Your task to perform on an android device: add a contact in the contacts app Image 0: 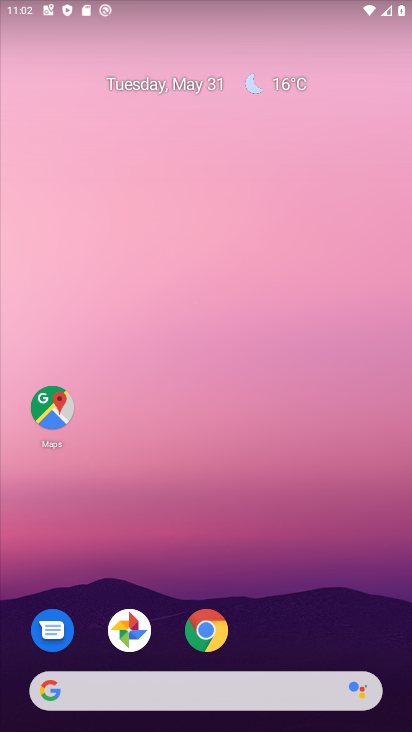
Step 0: drag from (265, 639) to (268, 157)
Your task to perform on an android device: add a contact in the contacts app Image 1: 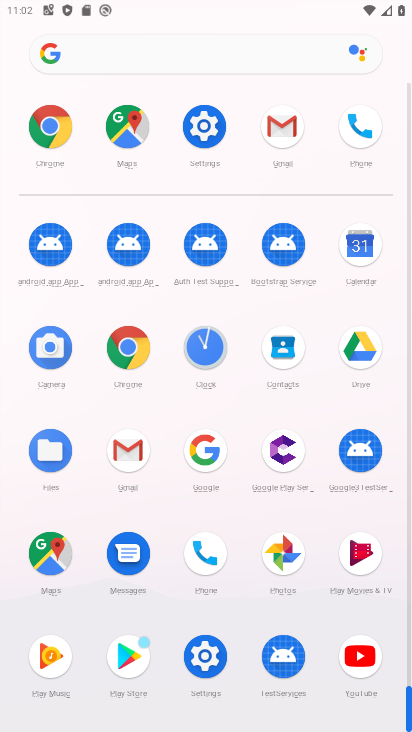
Step 1: click (355, 123)
Your task to perform on an android device: add a contact in the contacts app Image 2: 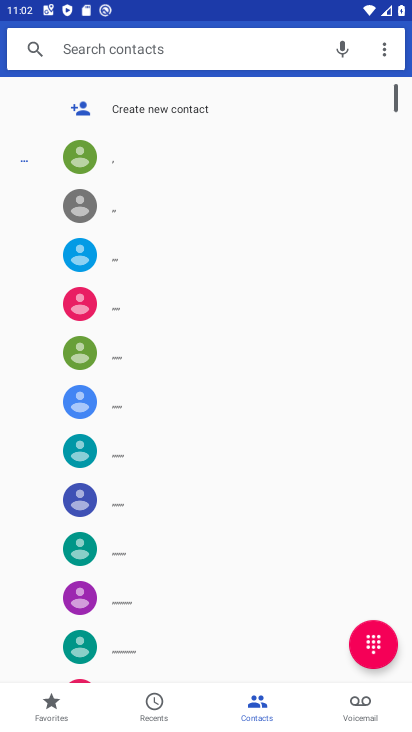
Step 2: click (147, 112)
Your task to perform on an android device: add a contact in the contacts app Image 3: 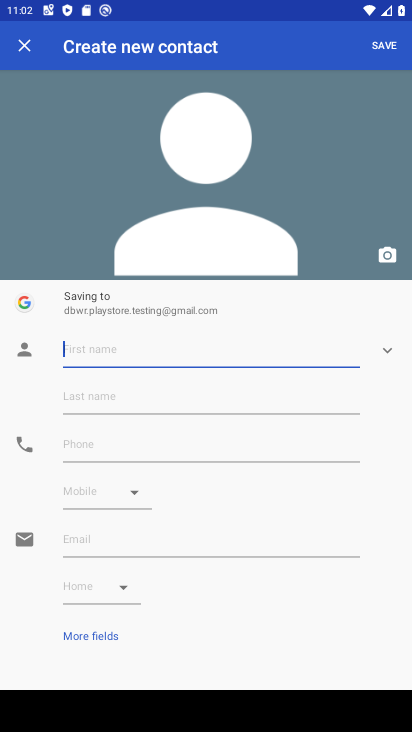
Step 3: click (167, 334)
Your task to perform on an android device: add a contact in the contacts app Image 4: 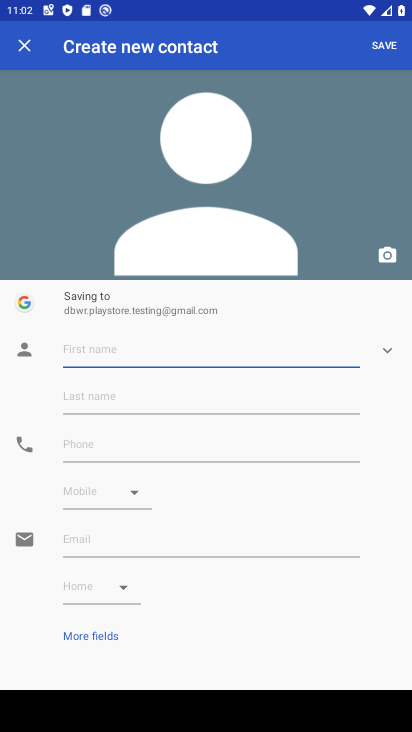
Step 4: type "ygyggygyg"
Your task to perform on an android device: add a contact in the contacts app Image 5: 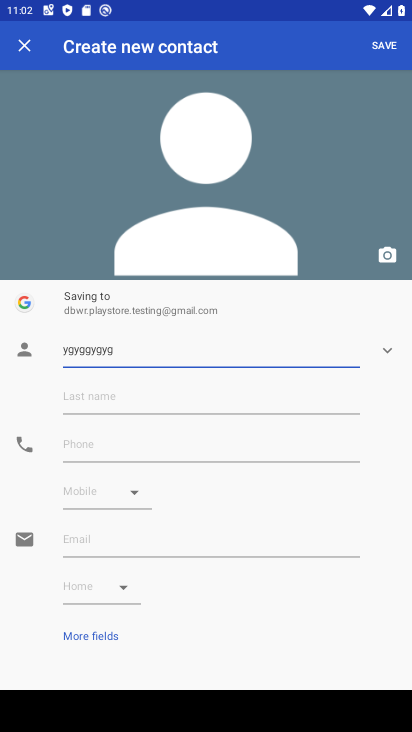
Step 5: click (106, 447)
Your task to perform on an android device: add a contact in the contacts app Image 6: 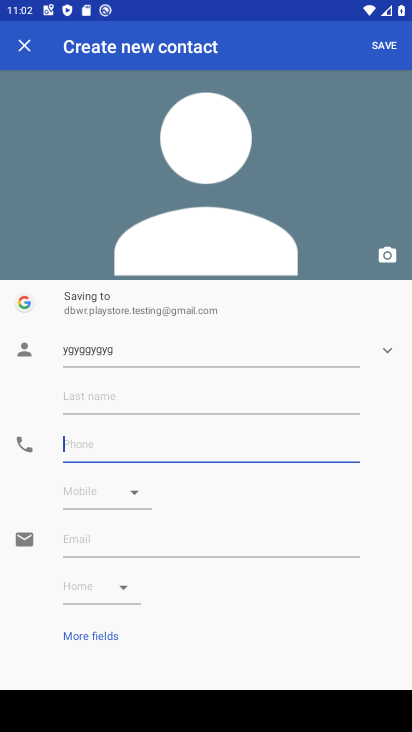
Step 6: type "2345678"
Your task to perform on an android device: add a contact in the contacts app Image 7: 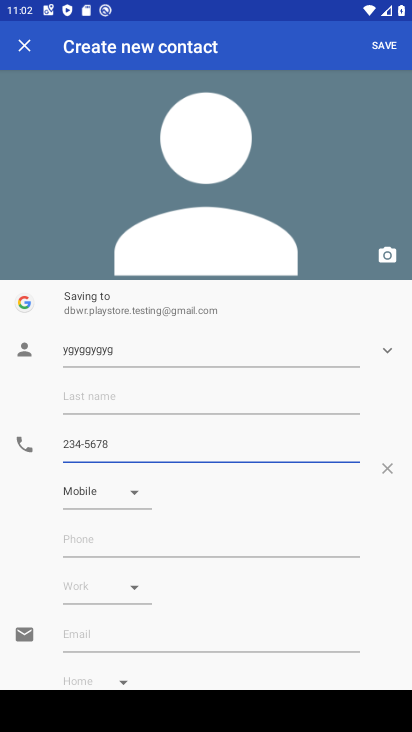
Step 7: task complete